Your task to perform on an android device: check data usage Image 0: 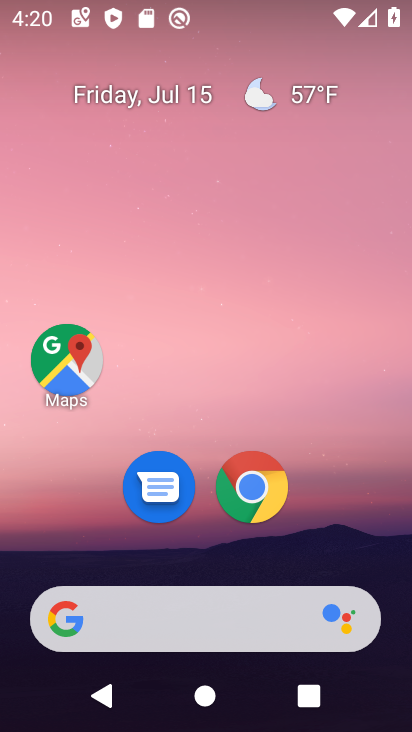
Step 0: drag from (192, 667) to (166, 250)
Your task to perform on an android device: check data usage Image 1: 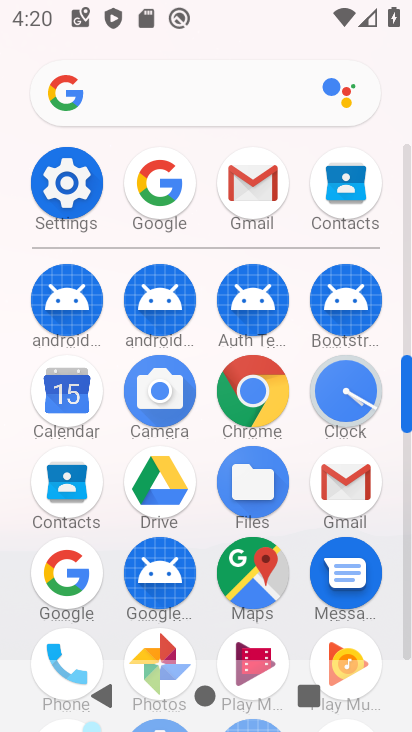
Step 1: click (50, 199)
Your task to perform on an android device: check data usage Image 2: 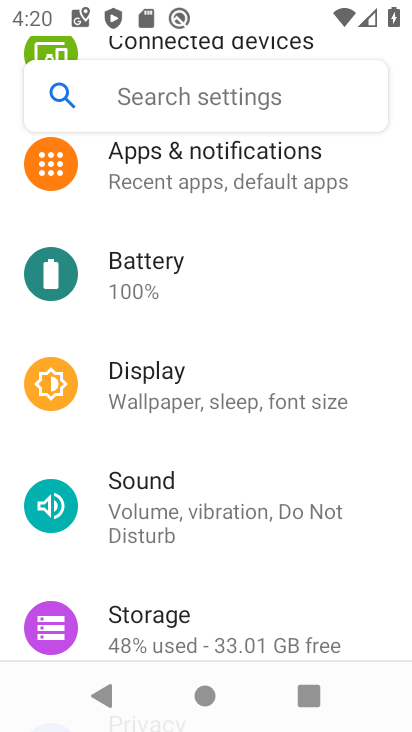
Step 2: drag from (151, 260) to (163, 488)
Your task to perform on an android device: check data usage Image 3: 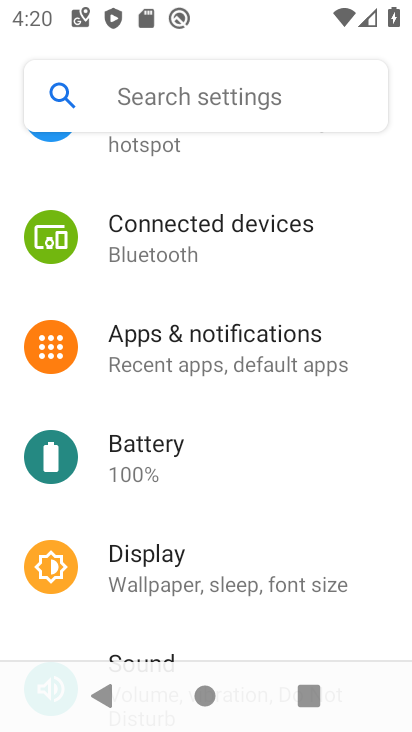
Step 3: click (230, 238)
Your task to perform on an android device: check data usage Image 4: 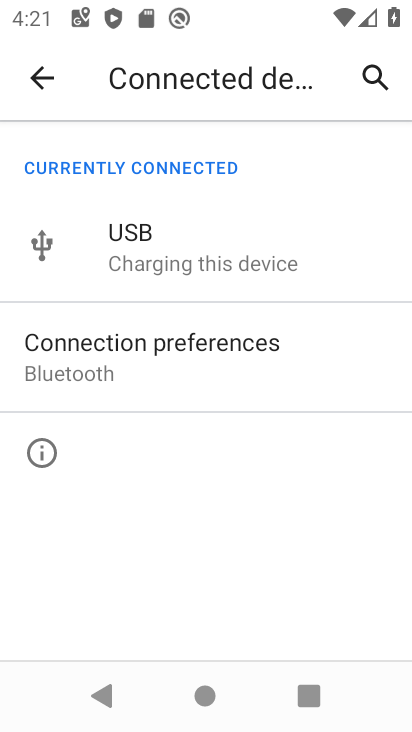
Step 4: click (42, 72)
Your task to perform on an android device: check data usage Image 5: 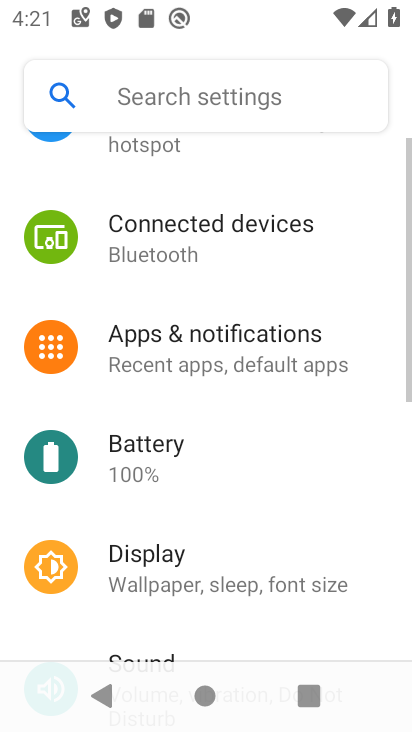
Step 5: drag from (241, 619) to (226, 693)
Your task to perform on an android device: check data usage Image 6: 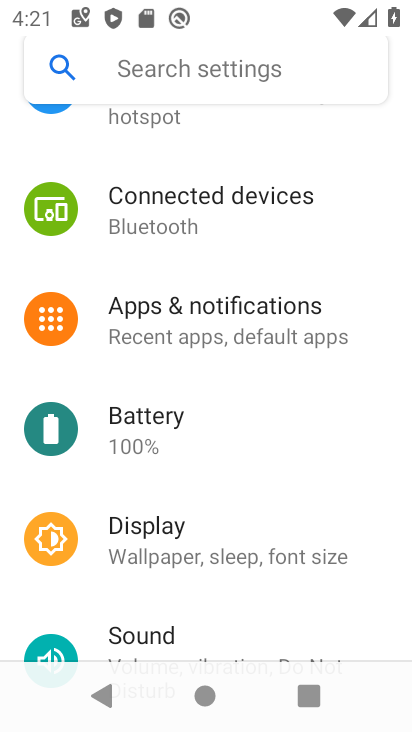
Step 6: drag from (240, 304) to (127, 679)
Your task to perform on an android device: check data usage Image 7: 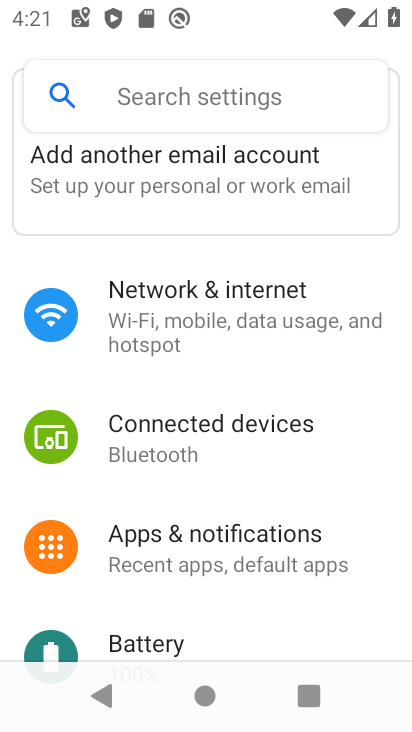
Step 7: click (219, 345)
Your task to perform on an android device: check data usage Image 8: 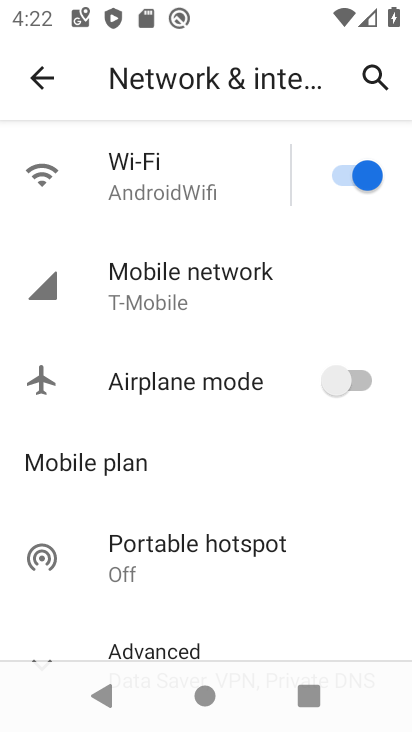
Step 8: click (237, 284)
Your task to perform on an android device: check data usage Image 9: 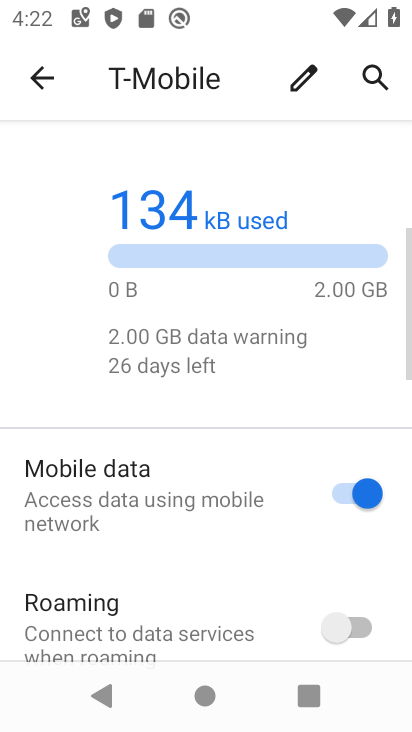
Step 9: drag from (205, 536) to (309, 2)
Your task to perform on an android device: check data usage Image 10: 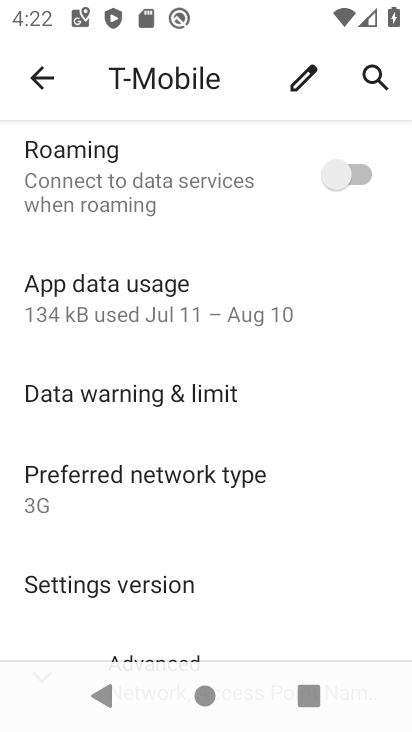
Step 10: click (210, 267)
Your task to perform on an android device: check data usage Image 11: 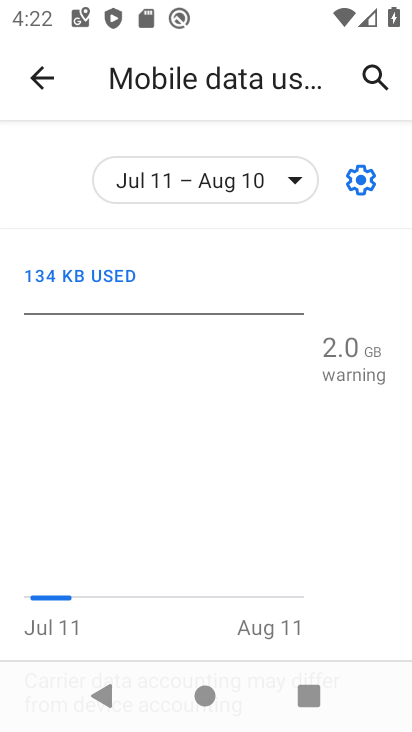
Step 11: task complete